Your task to perform on an android device: find which apps use the phone's location Image 0: 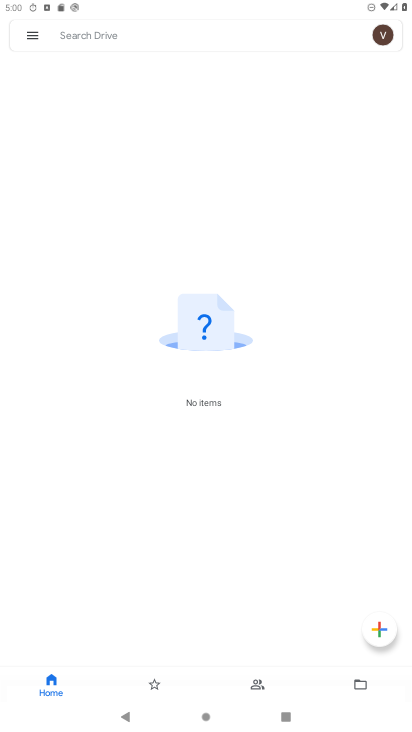
Step 0: press home button
Your task to perform on an android device: find which apps use the phone's location Image 1: 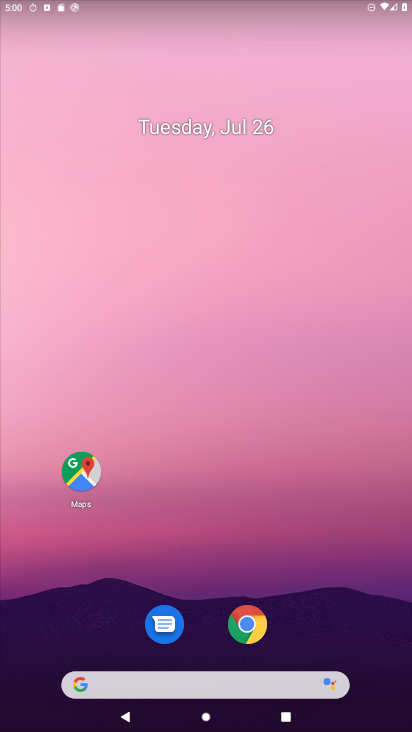
Step 1: drag from (290, 671) to (253, 6)
Your task to perform on an android device: find which apps use the phone's location Image 2: 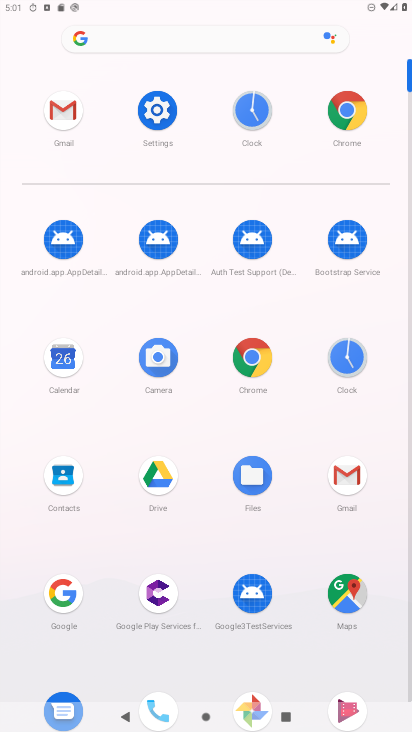
Step 2: drag from (167, 676) to (141, 358)
Your task to perform on an android device: find which apps use the phone's location Image 3: 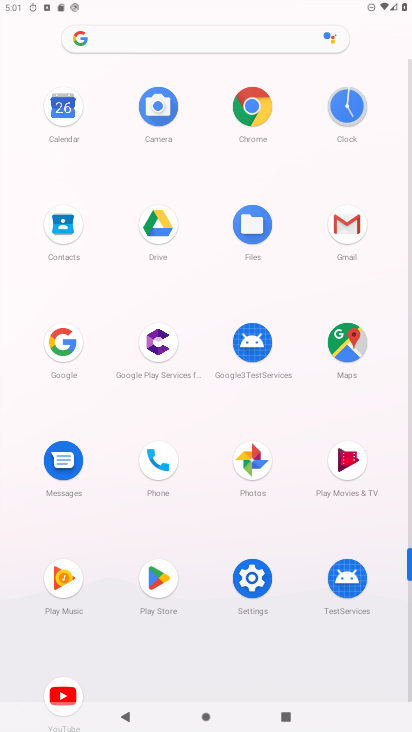
Step 3: click (159, 479)
Your task to perform on an android device: find which apps use the phone's location Image 4: 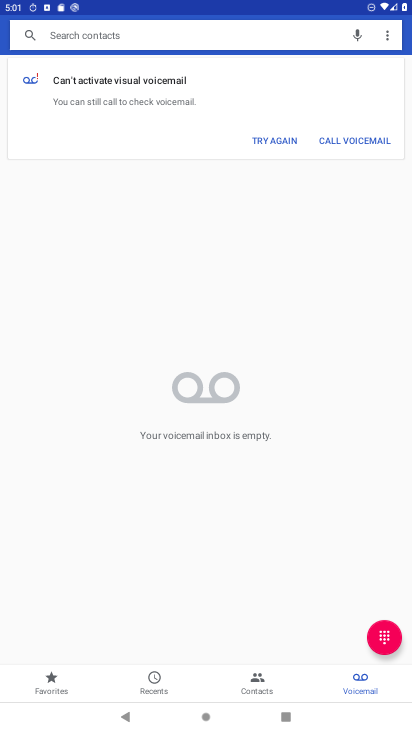
Step 4: click (361, 678)
Your task to perform on an android device: find which apps use the phone's location Image 5: 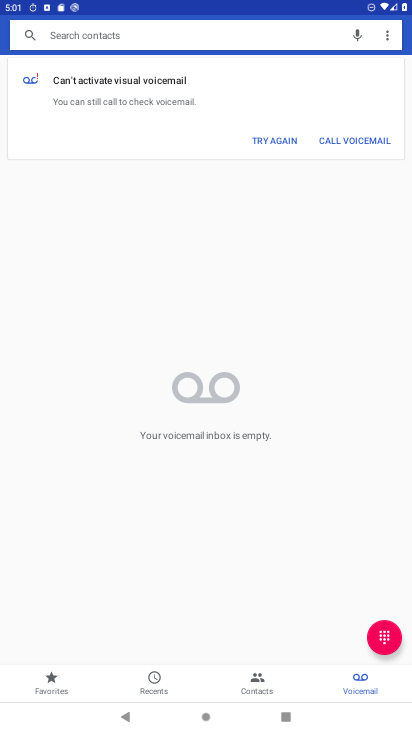
Step 5: press home button
Your task to perform on an android device: find which apps use the phone's location Image 6: 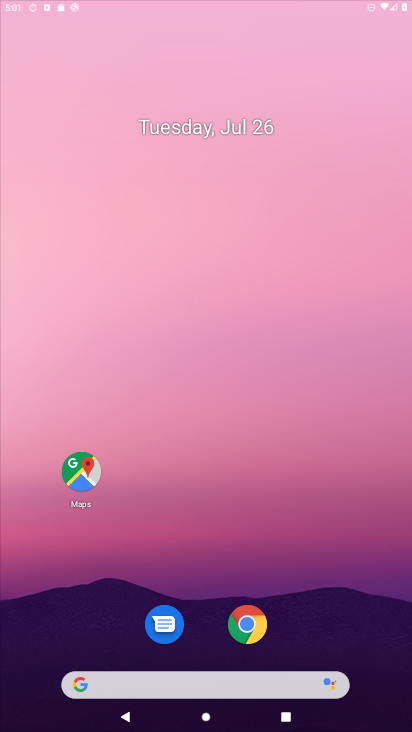
Step 6: drag from (322, 672) to (359, 5)
Your task to perform on an android device: find which apps use the phone's location Image 7: 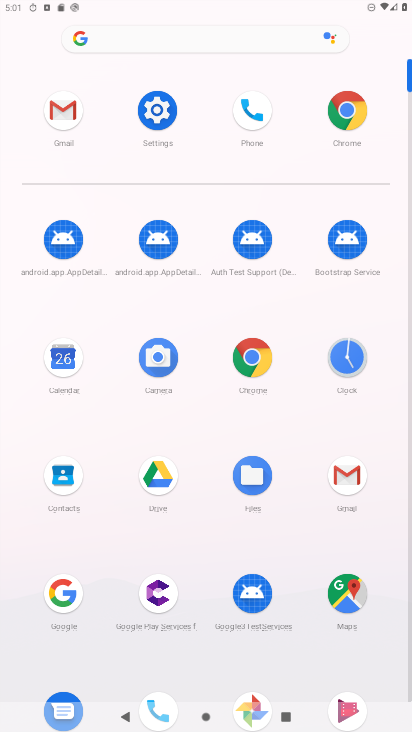
Step 7: click (155, 113)
Your task to perform on an android device: find which apps use the phone's location Image 8: 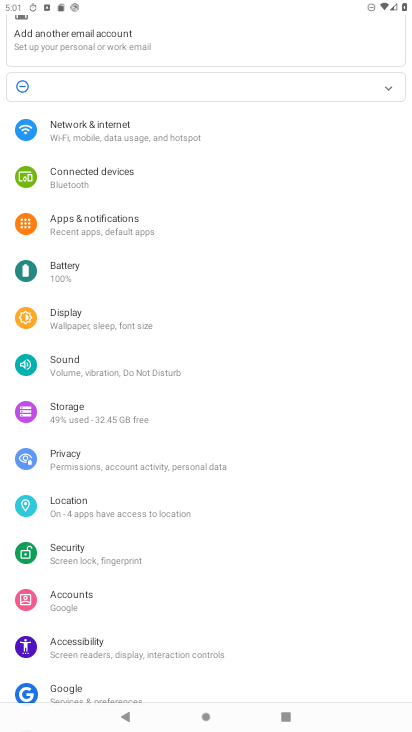
Step 8: click (109, 512)
Your task to perform on an android device: find which apps use the phone's location Image 9: 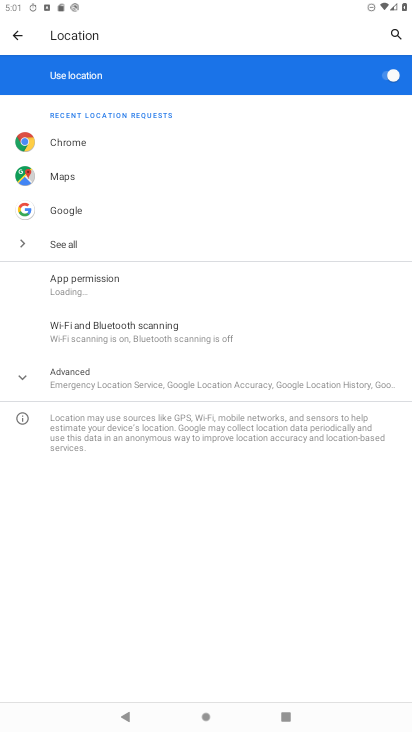
Step 9: click (189, 386)
Your task to perform on an android device: find which apps use the phone's location Image 10: 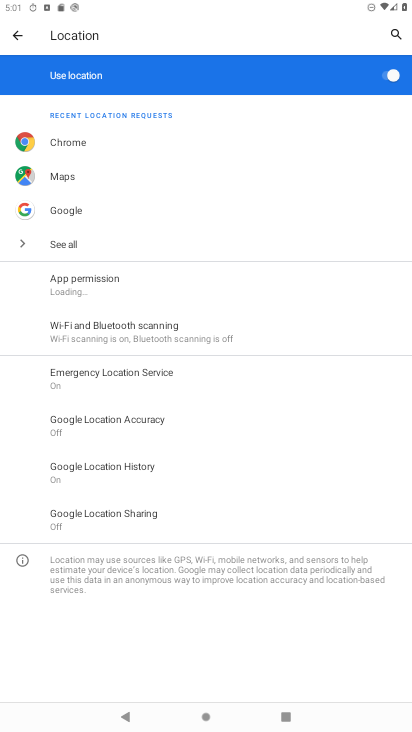
Step 10: click (122, 294)
Your task to perform on an android device: find which apps use the phone's location Image 11: 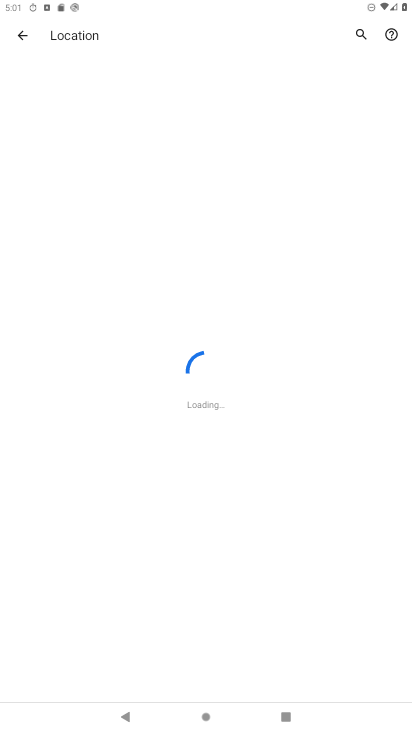
Step 11: task complete